Your task to perform on an android device: empty trash in google photos Image 0: 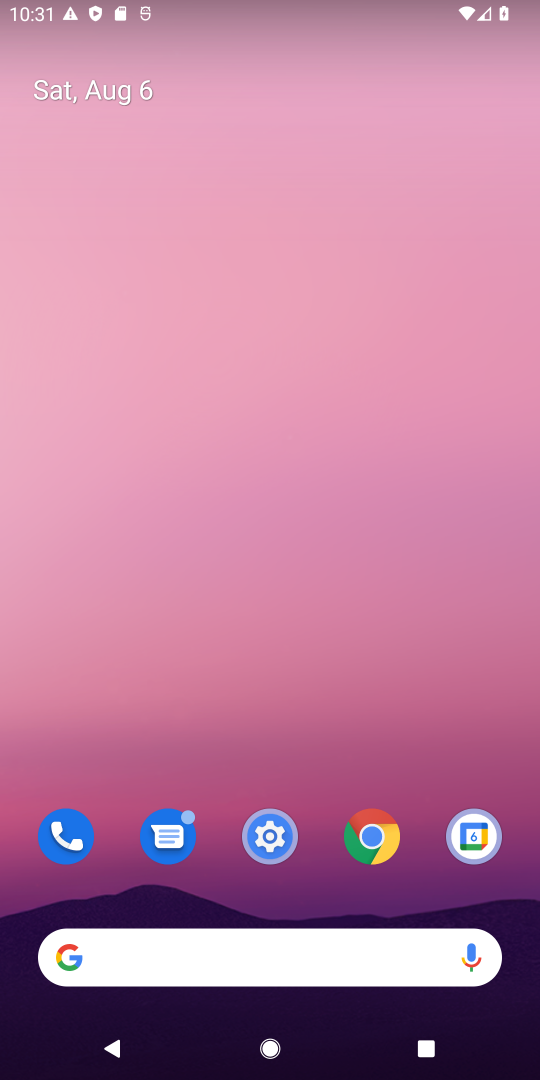
Step 0: drag from (278, 427) to (290, 39)
Your task to perform on an android device: empty trash in google photos Image 1: 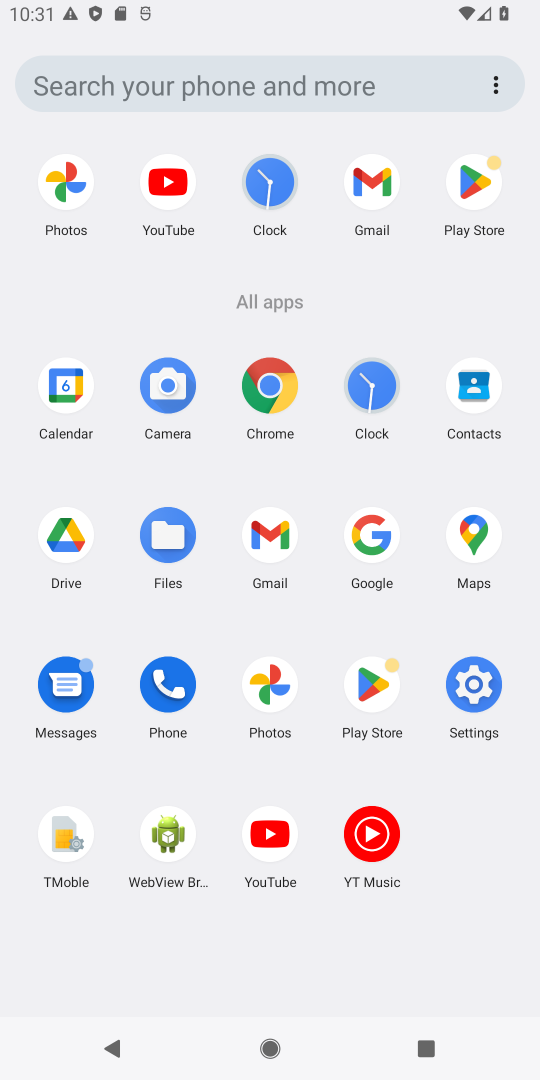
Step 1: click (254, 680)
Your task to perform on an android device: empty trash in google photos Image 2: 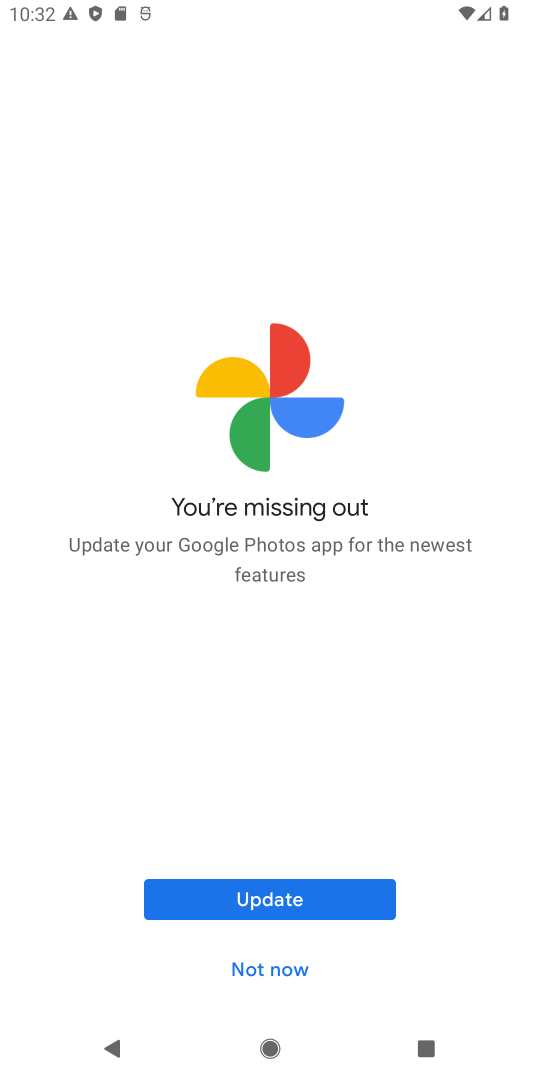
Step 2: click (271, 904)
Your task to perform on an android device: empty trash in google photos Image 3: 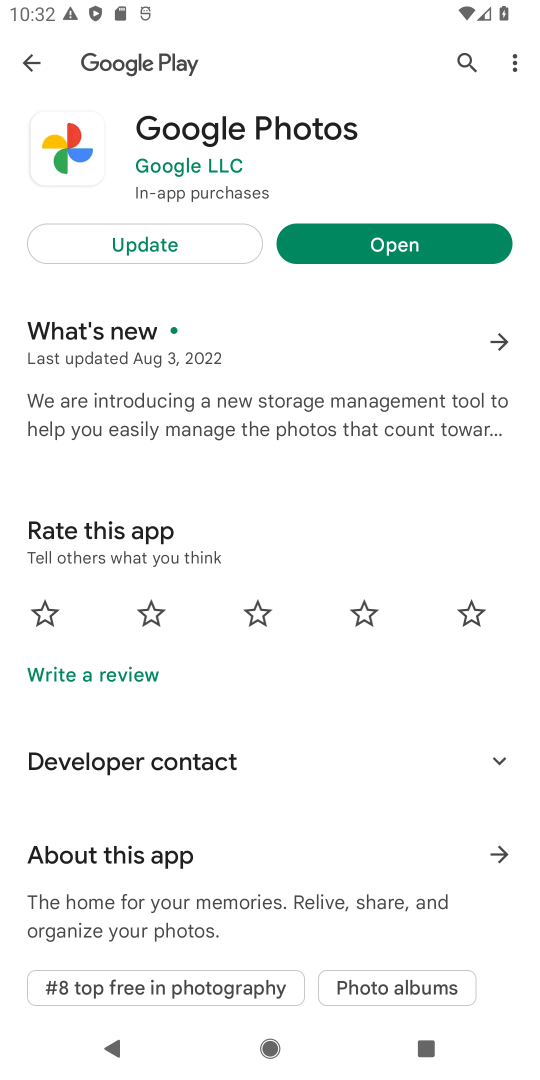
Step 3: click (164, 249)
Your task to perform on an android device: empty trash in google photos Image 4: 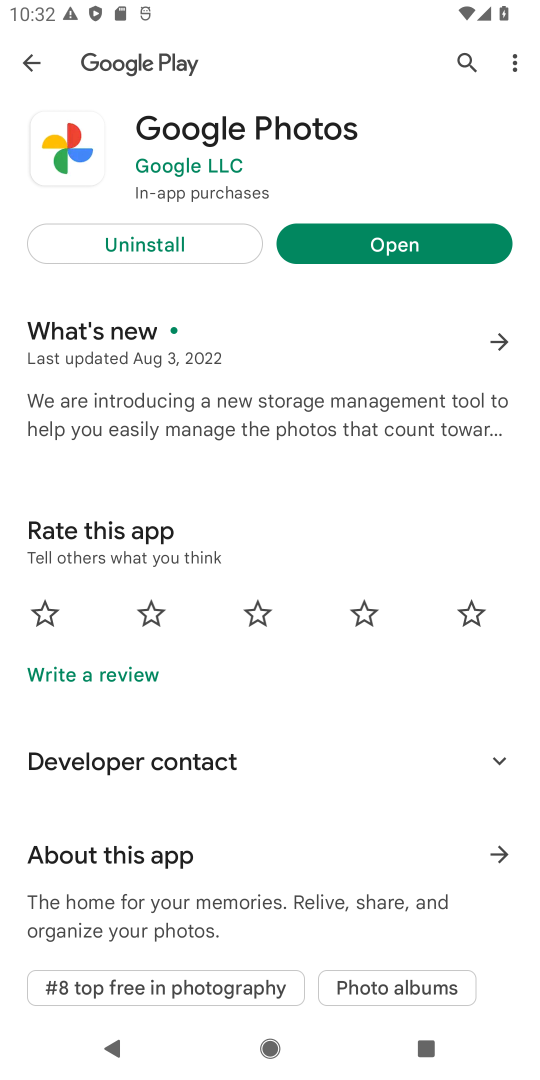
Step 4: click (438, 249)
Your task to perform on an android device: empty trash in google photos Image 5: 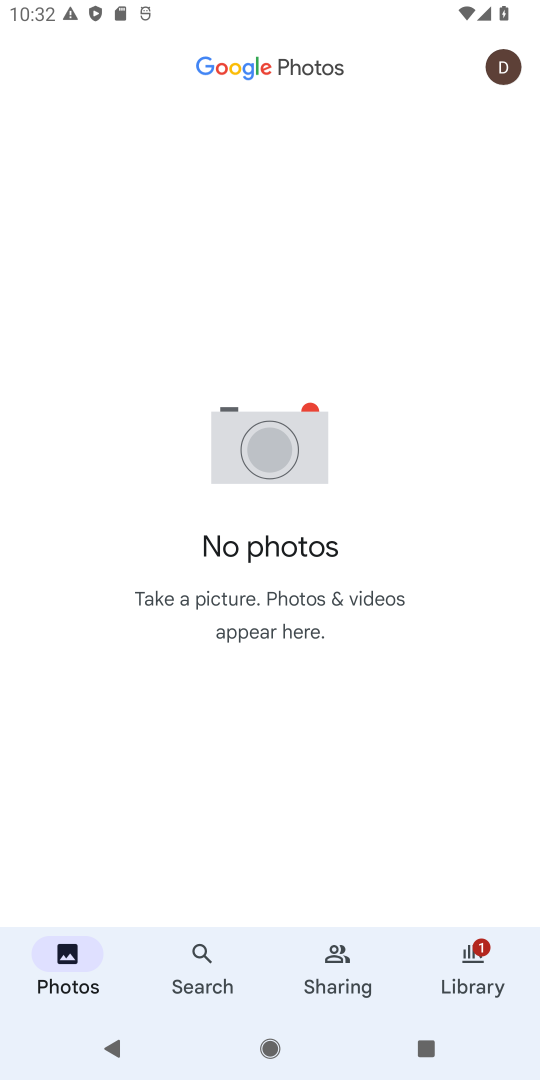
Step 5: click (478, 947)
Your task to perform on an android device: empty trash in google photos Image 6: 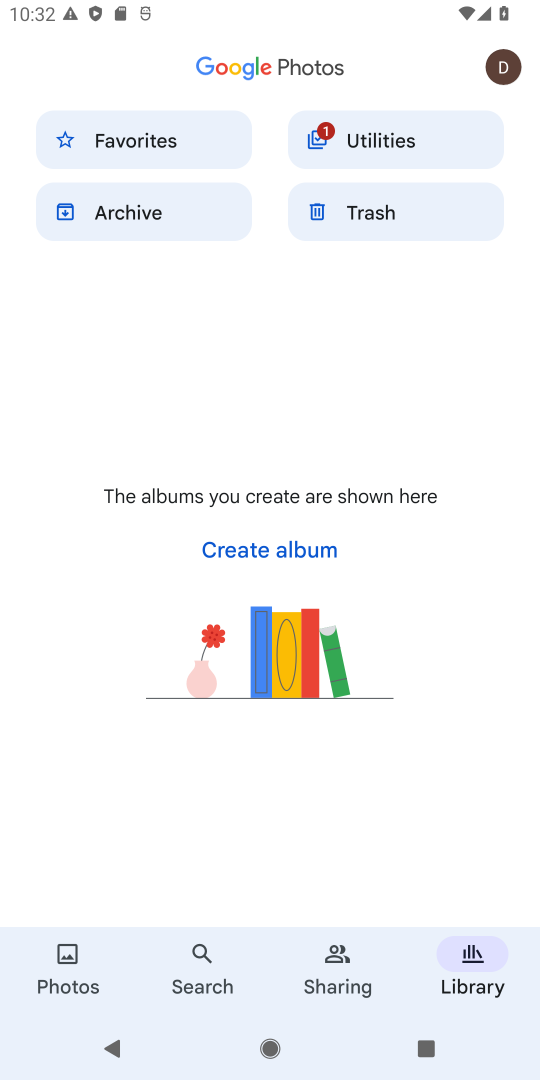
Step 6: click (352, 215)
Your task to perform on an android device: empty trash in google photos Image 7: 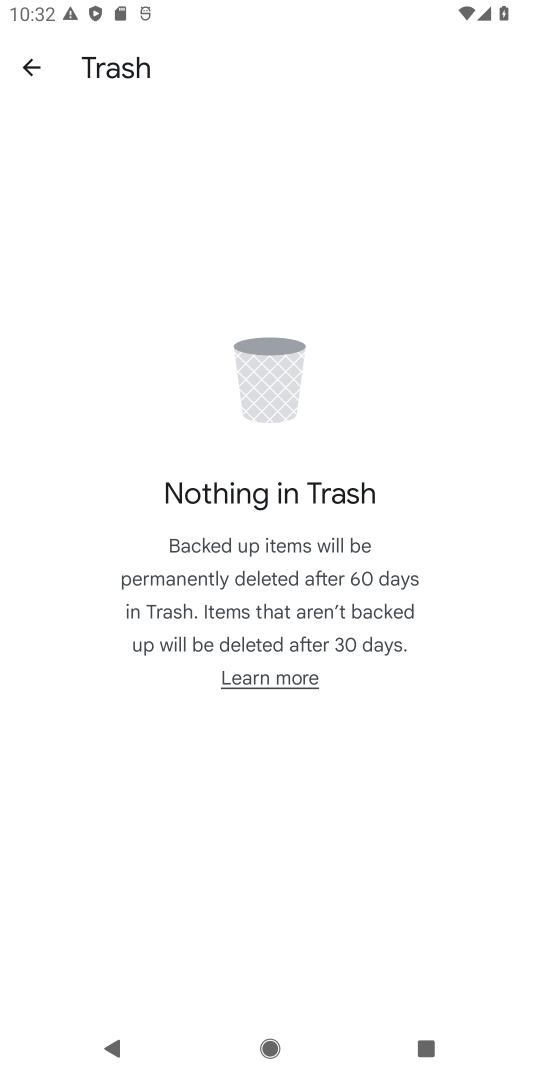
Step 7: task complete